Your task to perform on an android device: open device folders in google photos Image 0: 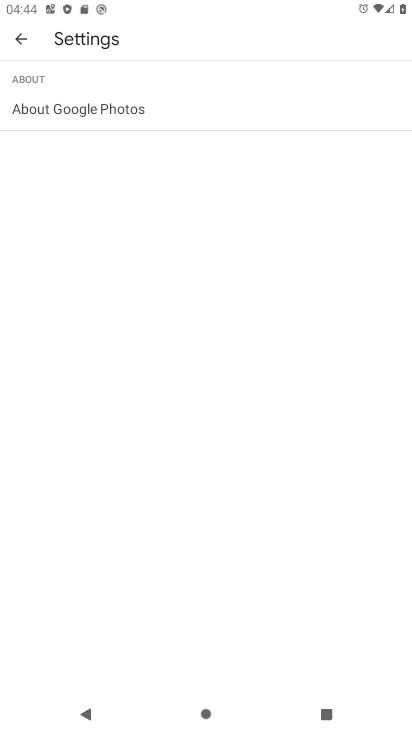
Step 0: press home button
Your task to perform on an android device: open device folders in google photos Image 1: 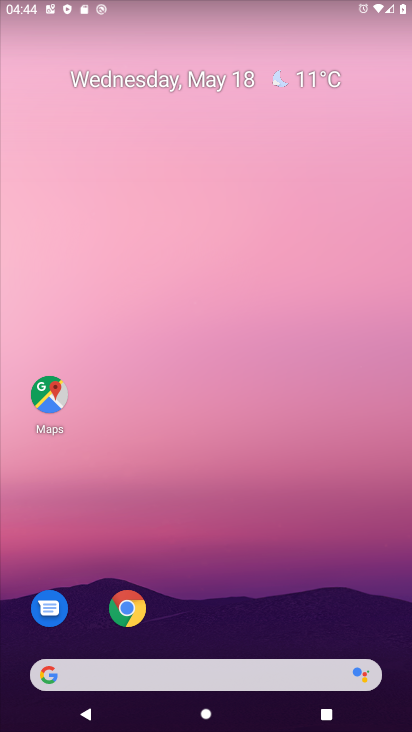
Step 1: drag from (268, 623) to (272, 2)
Your task to perform on an android device: open device folders in google photos Image 2: 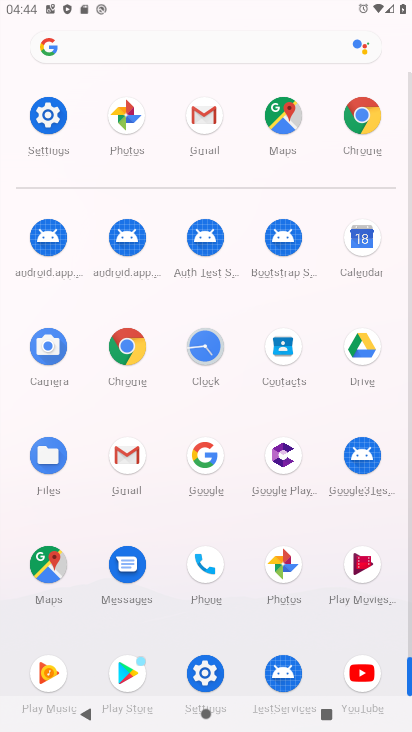
Step 2: click (130, 122)
Your task to perform on an android device: open device folders in google photos Image 3: 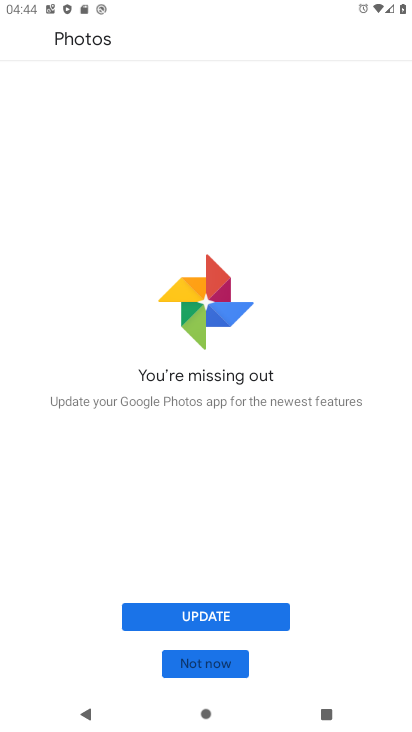
Step 3: click (213, 678)
Your task to perform on an android device: open device folders in google photos Image 4: 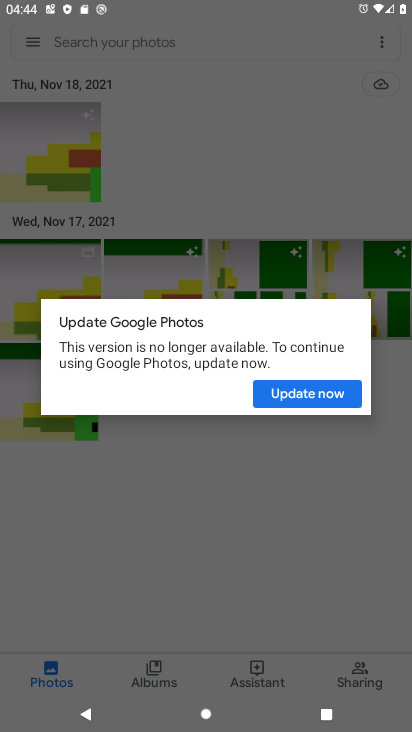
Step 4: click (307, 399)
Your task to perform on an android device: open device folders in google photos Image 5: 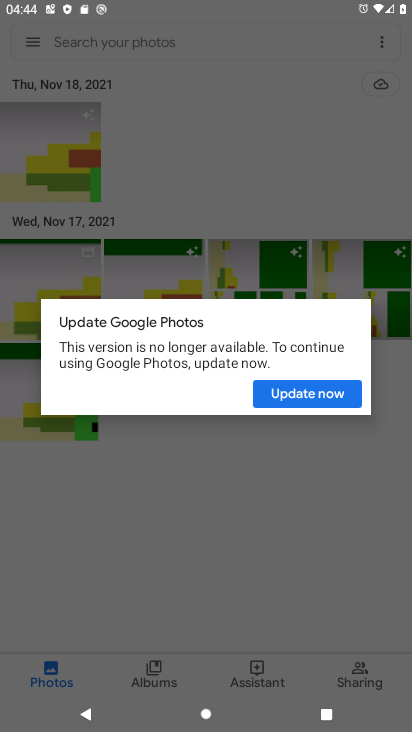
Step 5: click (307, 399)
Your task to perform on an android device: open device folders in google photos Image 6: 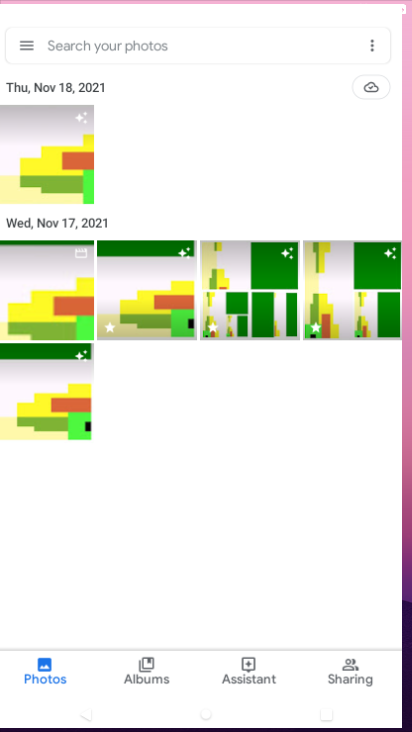
Step 6: click (307, 399)
Your task to perform on an android device: open device folders in google photos Image 7: 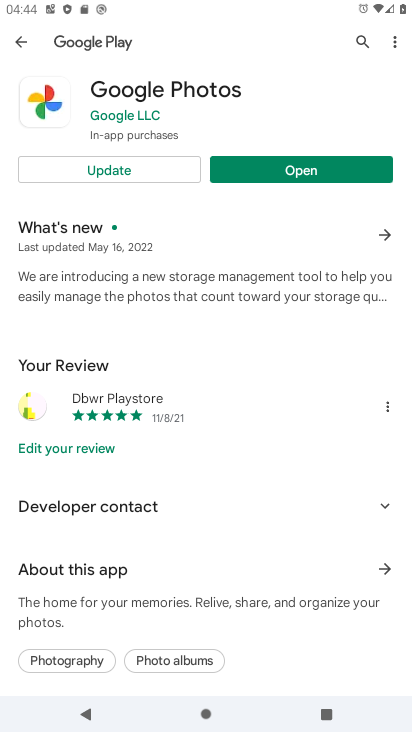
Step 7: click (288, 175)
Your task to perform on an android device: open device folders in google photos Image 8: 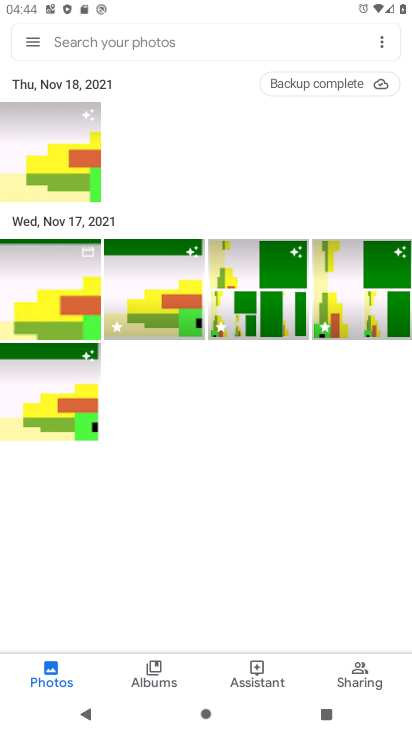
Step 8: click (33, 54)
Your task to perform on an android device: open device folders in google photos Image 9: 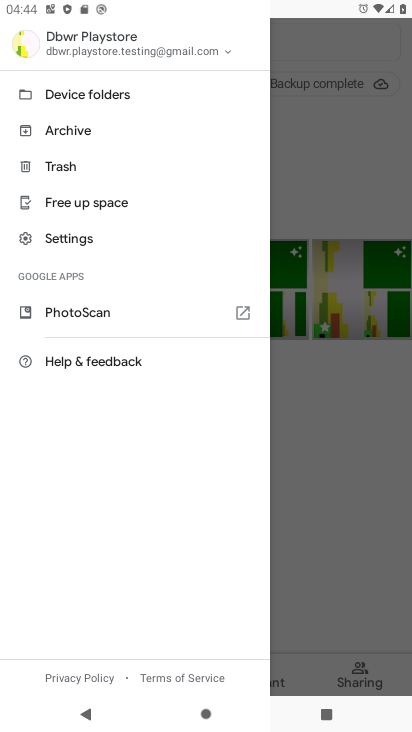
Step 9: click (140, 106)
Your task to perform on an android device: open device folders in google photos Image 10: 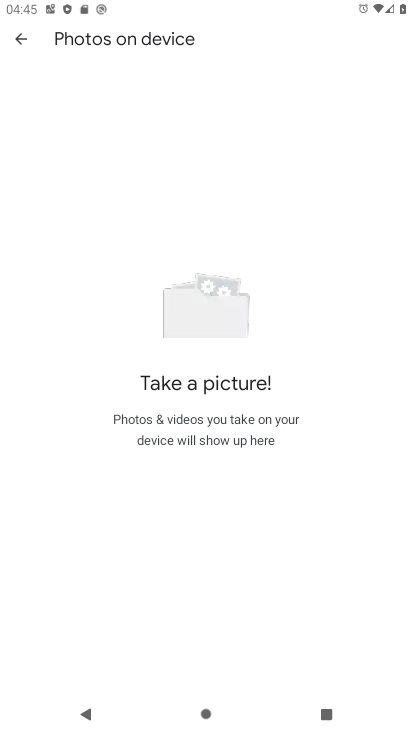
Step 10: task complete